Your task to perform on an android device: Do I have any events tomorrow? Image 0: 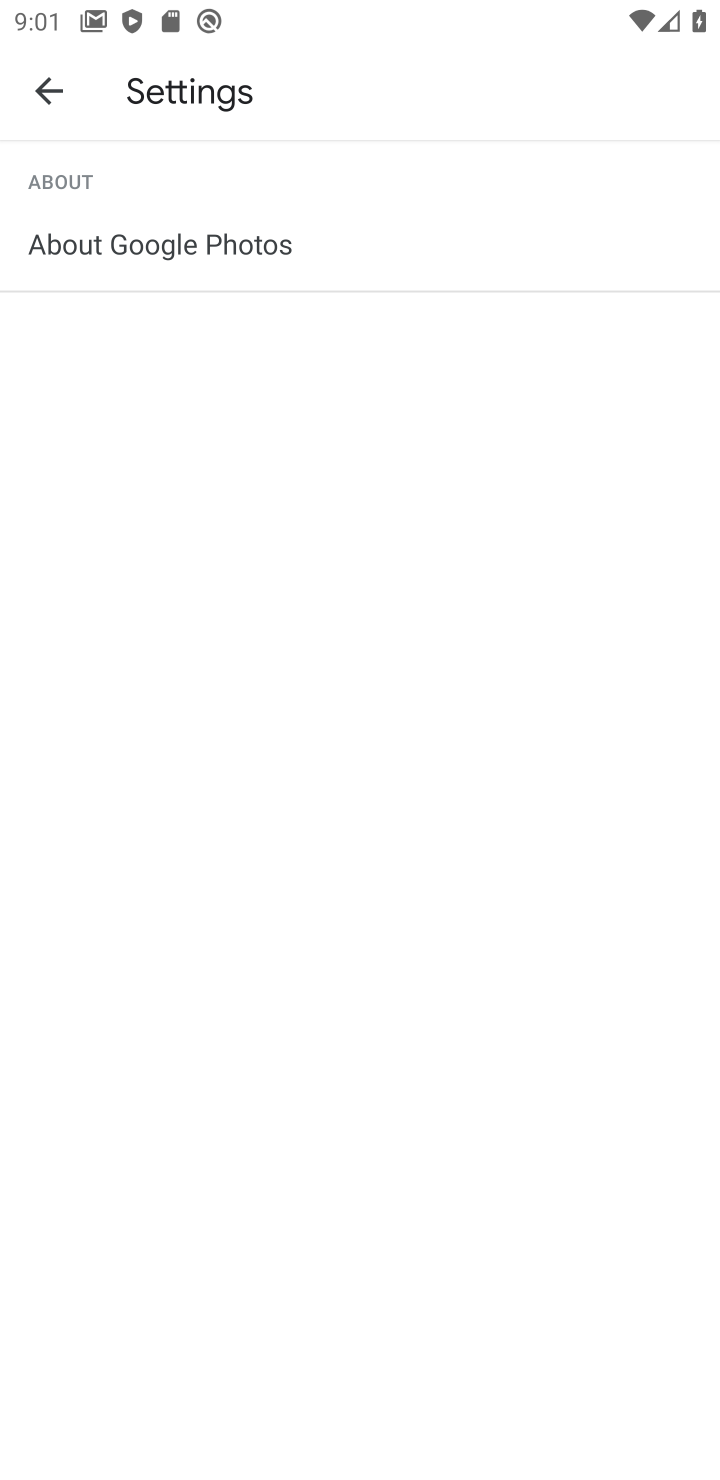
Step 0: press home button
Your task to perform on an android device: Do I have any events tomorrow? Image 1: 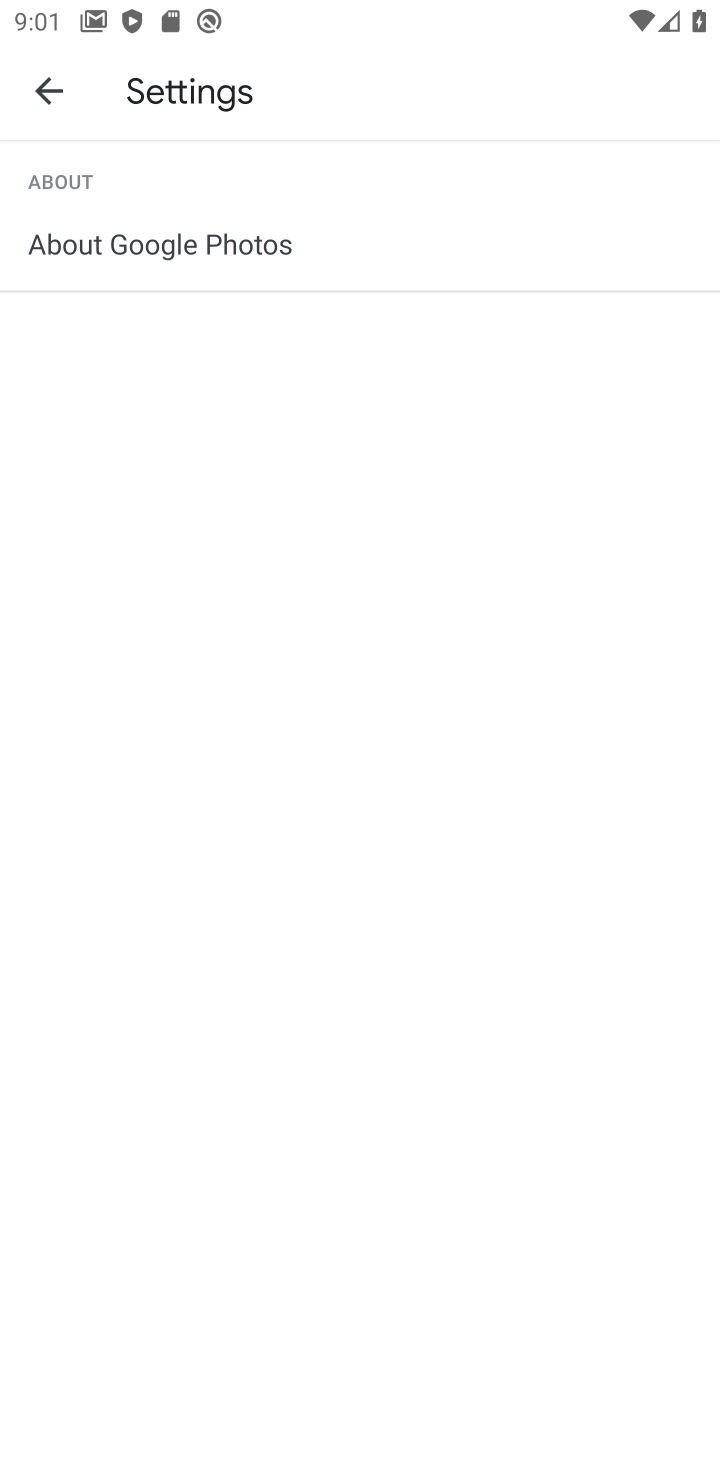
Step 1: press home button
Your task to perform on an android device: Do I have any events tomorrow? Image 2: 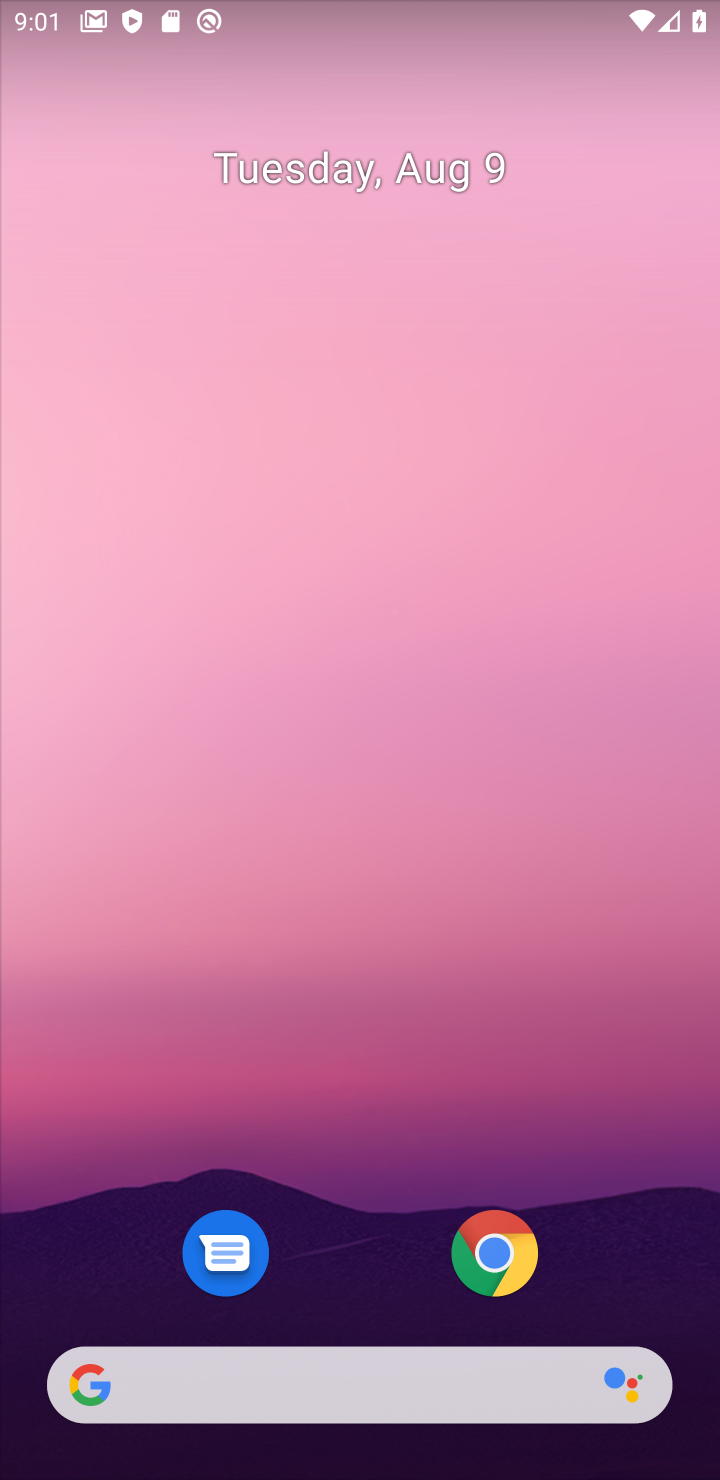
Step 2: drag from (394, 1263) to (422, 150)
Your task to perform on an android device: Do I have any events tomorrow? Image 3: 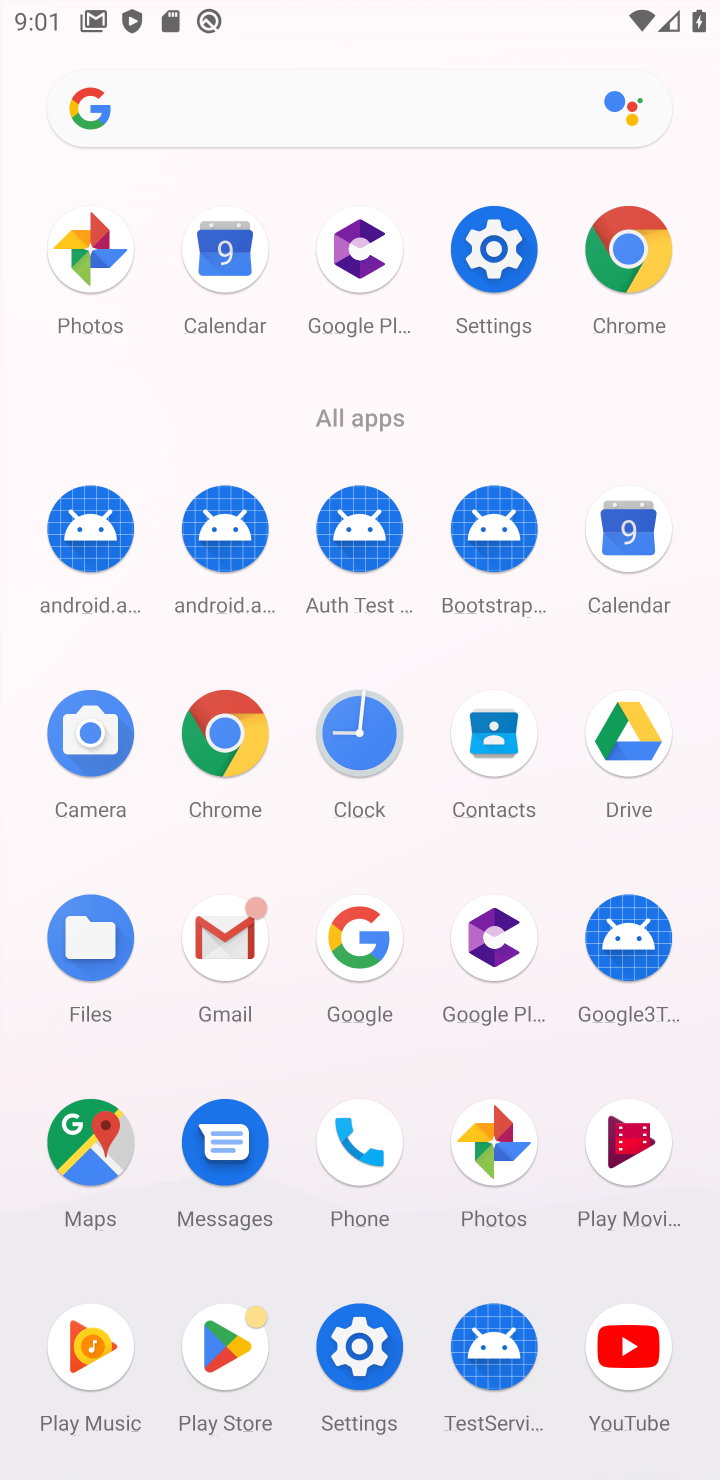
Step 3: click (625, 538)
Your task to perform on an android device: Do I have any events tomorrow? Image 4: 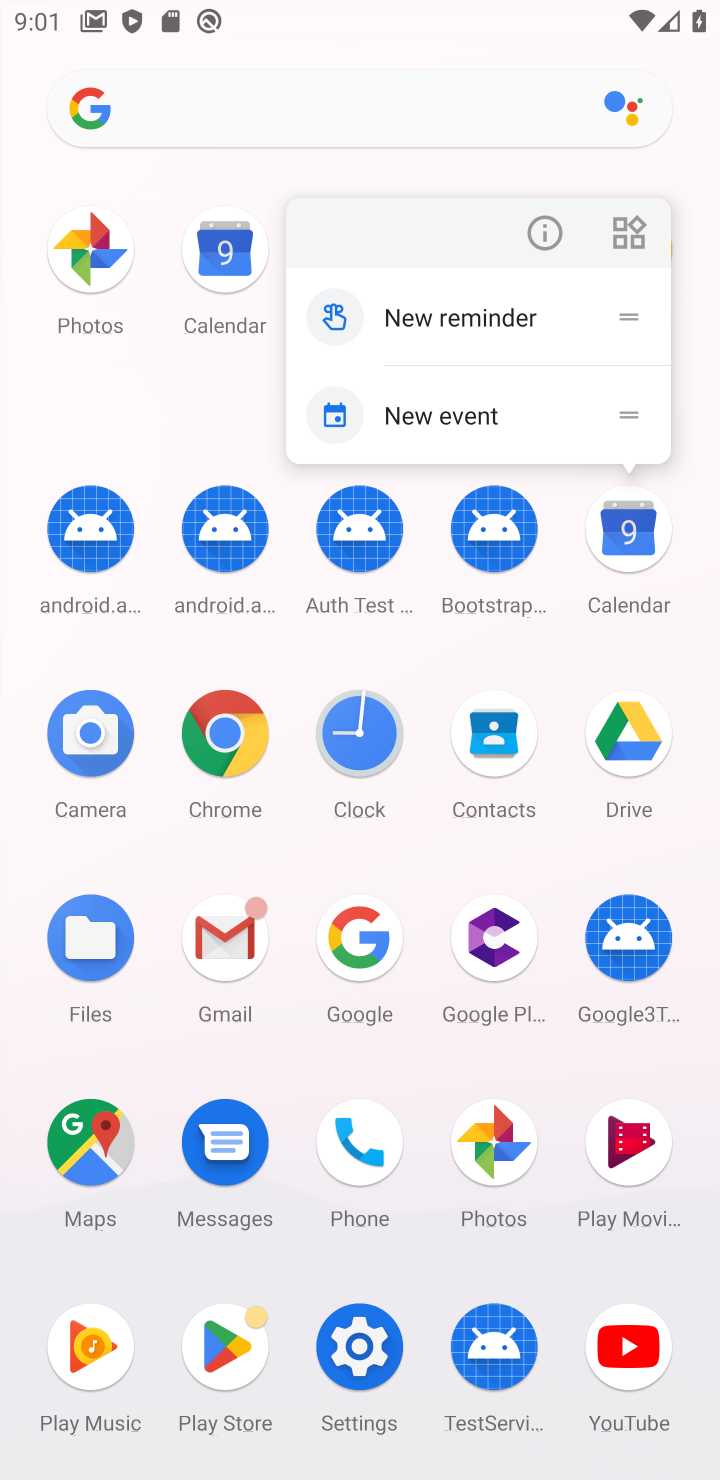
Step 4: click (625, 538)
Your task to perform on an android device: Do I have any events tomorrow? Image 5: 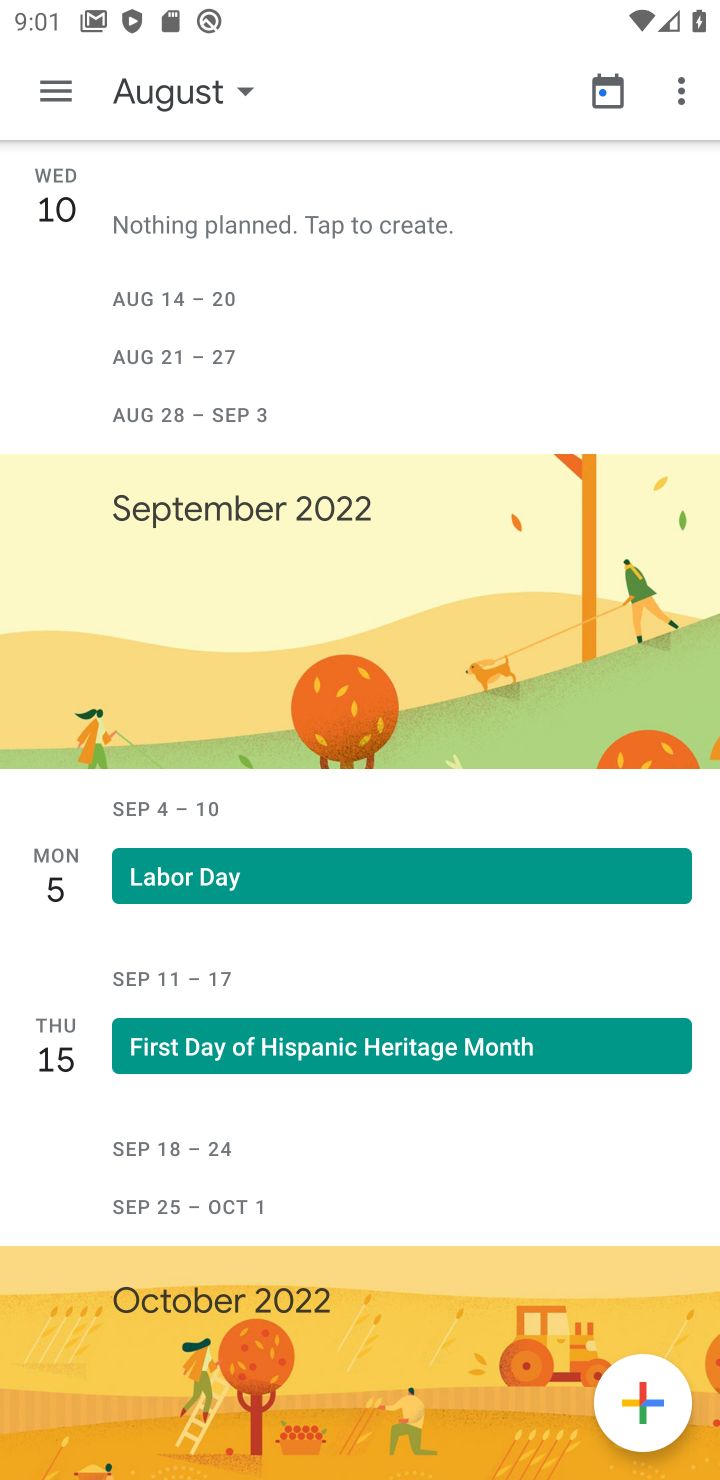
Step 5: click (189, 86)
Your task to perform on an android device: Do I have any events tomorrow? Image 6: 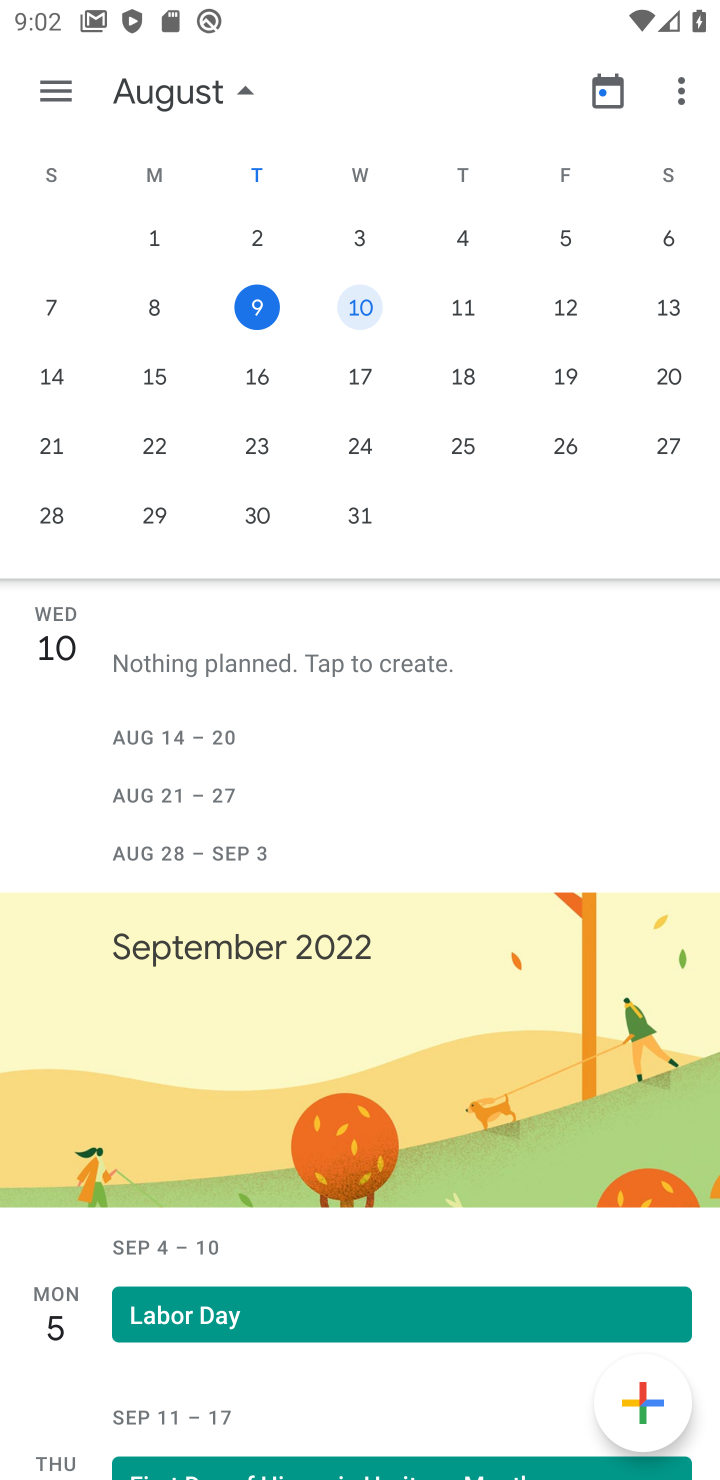
Step 6: click (360, 301)
Your task to perform on an android device: Do I have any events tomorrow? Image 7: 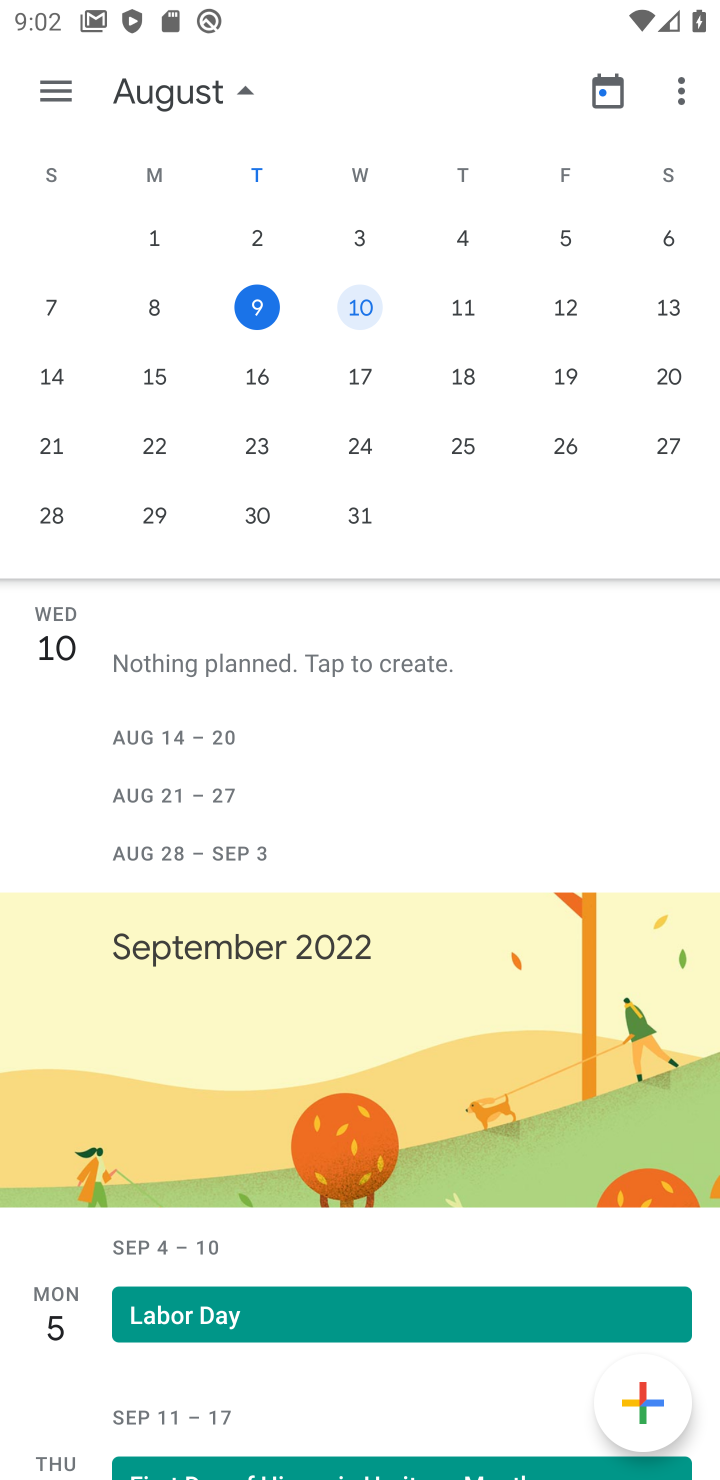
Step 7: task complete